Your task to perform on an android device: change your default location settings in chrome Image 0: 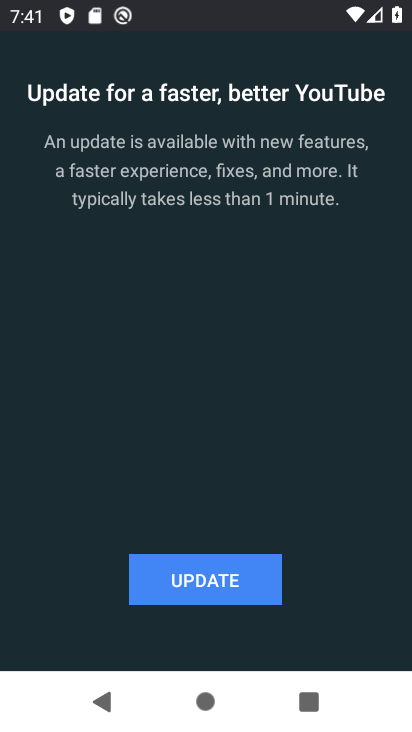
Step 0: press home button
Your task to perform on an android device: change your default location settings in chrome Image 1: 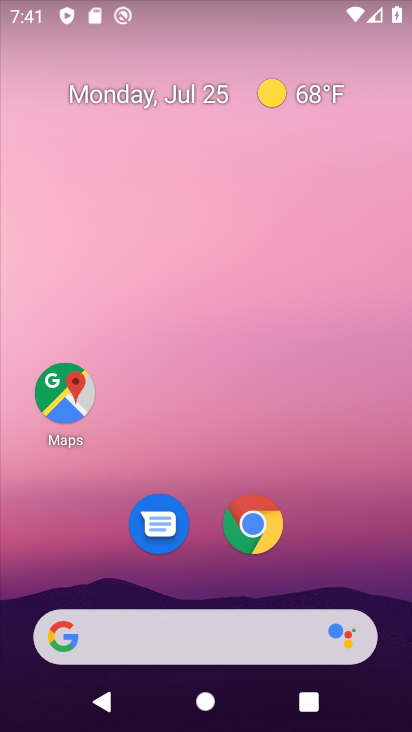
Step 1: click (260, 511)
Your task to perform on an android device: change your default location settings in chrome Image 2: 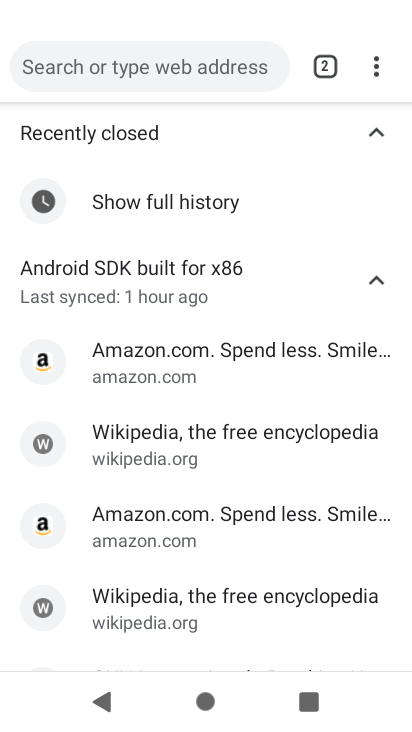
Step 2: click (374, 67)
Your task to perform on an android device: change your default location settings in chrome Image 3: 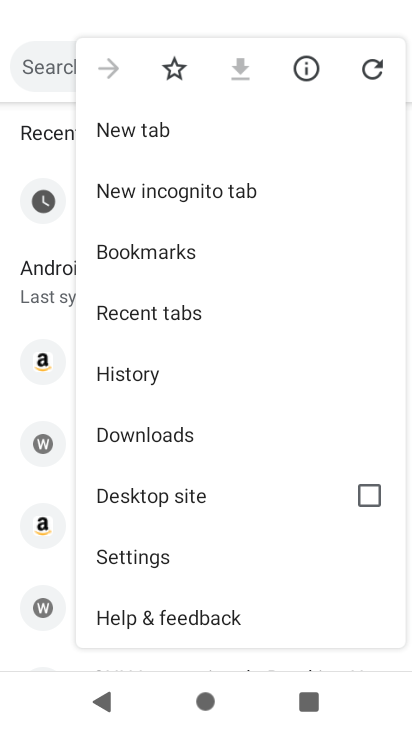
Step 3: click (150, 552)
Your task to perform on an android device: change your default location settings in chrome Image 4: 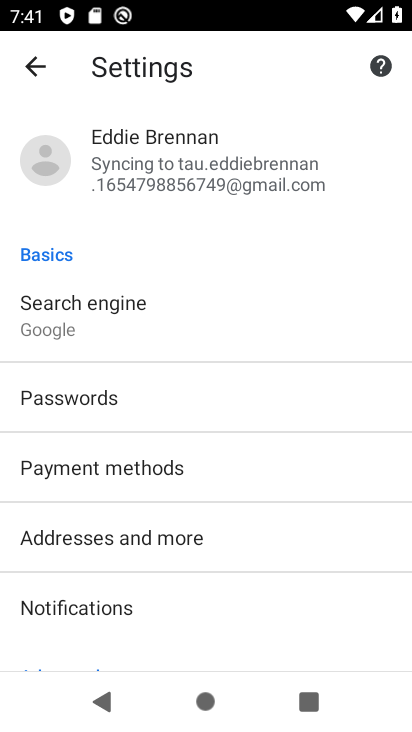
Step 4: drag from (224, 615) to (236, 313)
Your task to perform on an android device: change your default location settings in chrome Image 5: 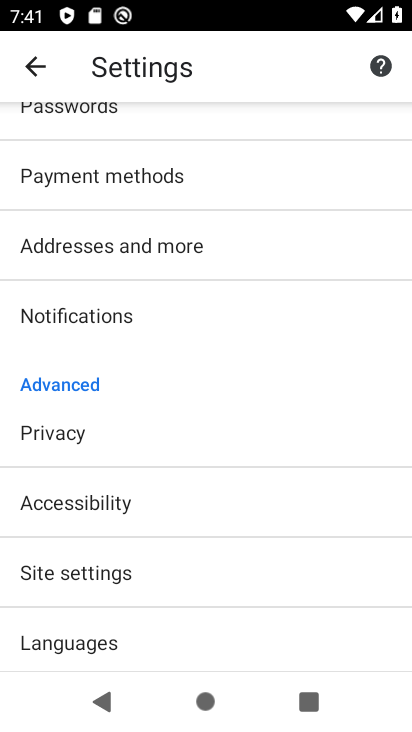
Step 5: click (107, 564)
Your task to perform on an android device: change your default location settings in chrome Image 6: 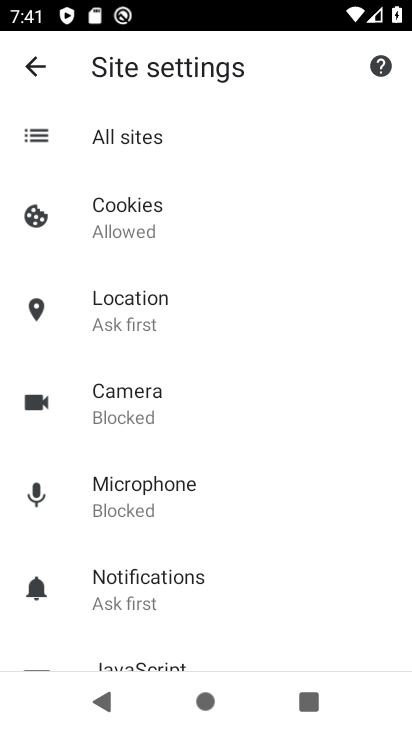
Step 6: click (161, 304)
Your task to perform on an android device: change your default location settings in chrome Image 7: 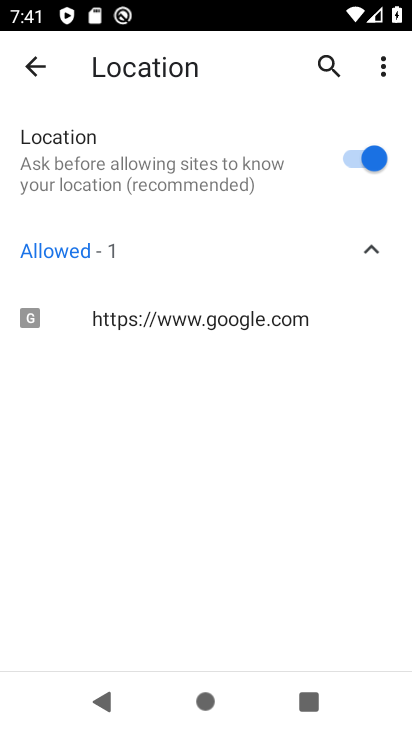
Step 7: click (355, 162)
Your task to perform on an android device: change your default location settings in chrome Image 8: 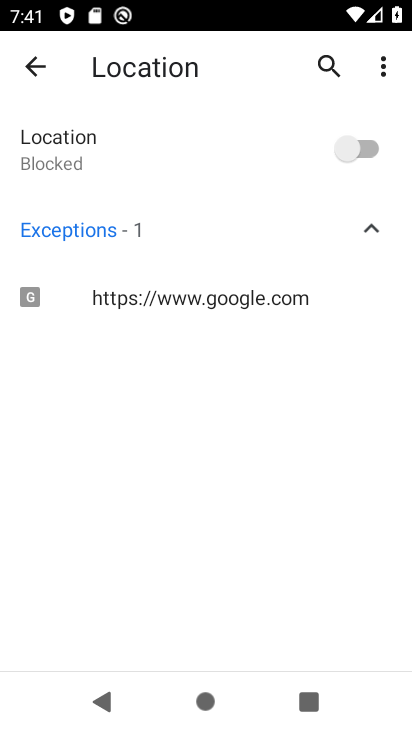
Step 8: task complete